Your task to perform on an android device: Clear the shopping cart on target. Add "lenovo thinkpad" to the cart on target, then select checkout. Image 0: 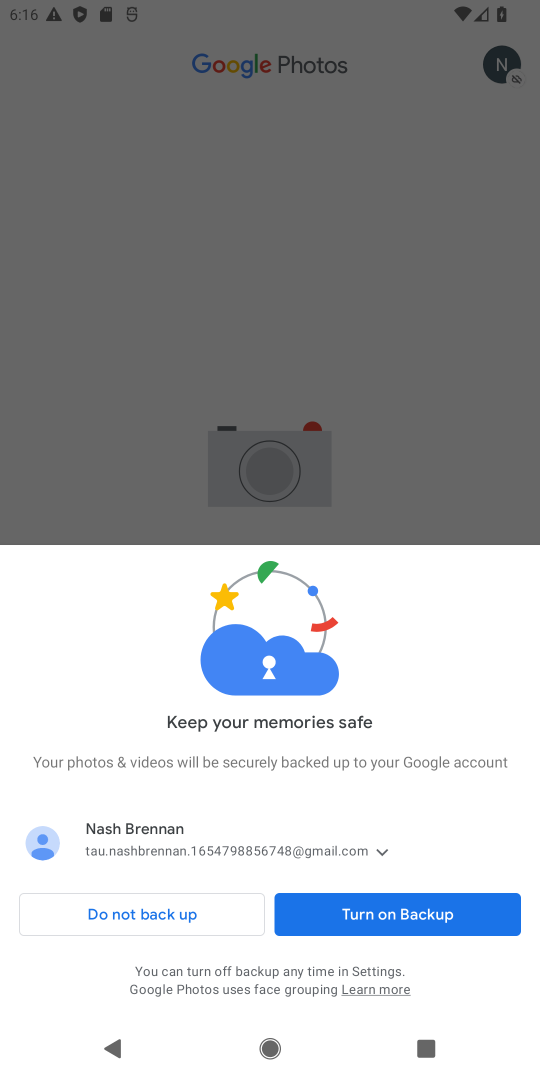
Step 0: click (387, 924)
Your task to perform on an android device: Clear the shopping cart on target. Add "lenovo thinkpad" to the cart on target, then select checkout. Image 1: 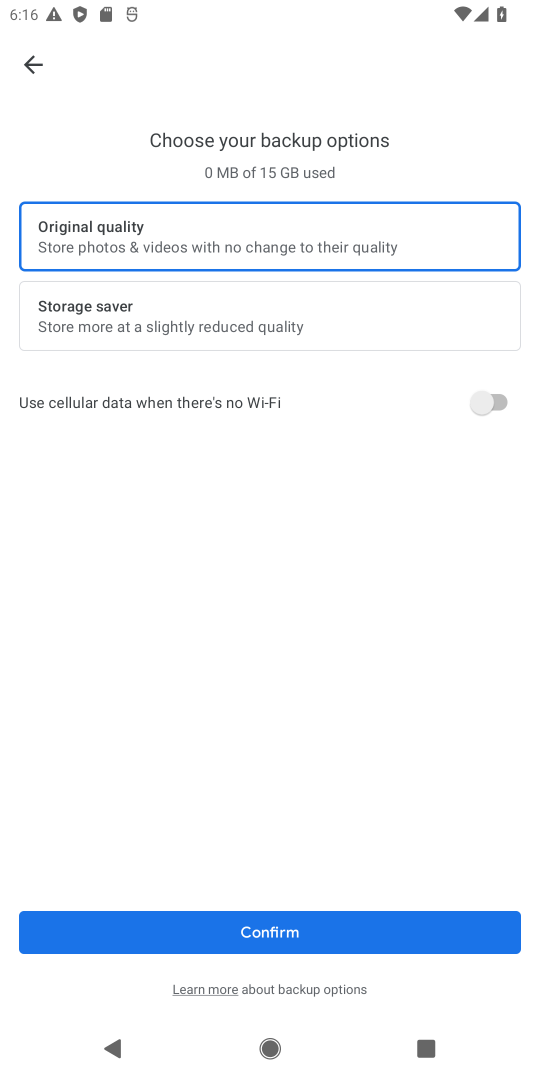
Step 1: click (299, 938)
Your task to perform on an android device: Clear the shopping cart on target. Add "lenovo thinkpad" to the cart on target, then select checkout. Image 2: 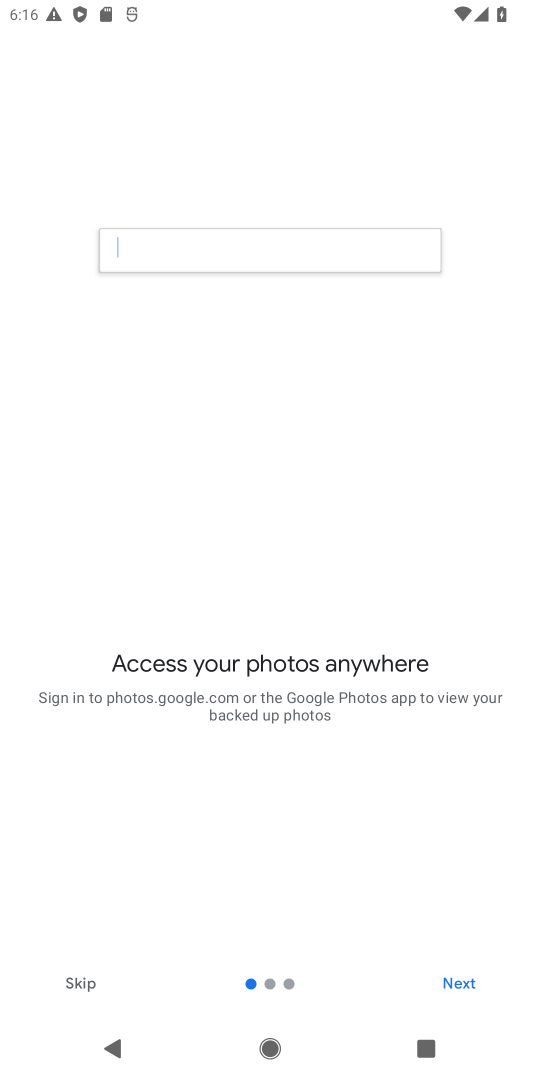
Step 2: press home button
Your task to perform on an android device: Clear the shopping cart on target. Add "lenovo thinkpad" to the cart on target, then select checkout. Image 3: 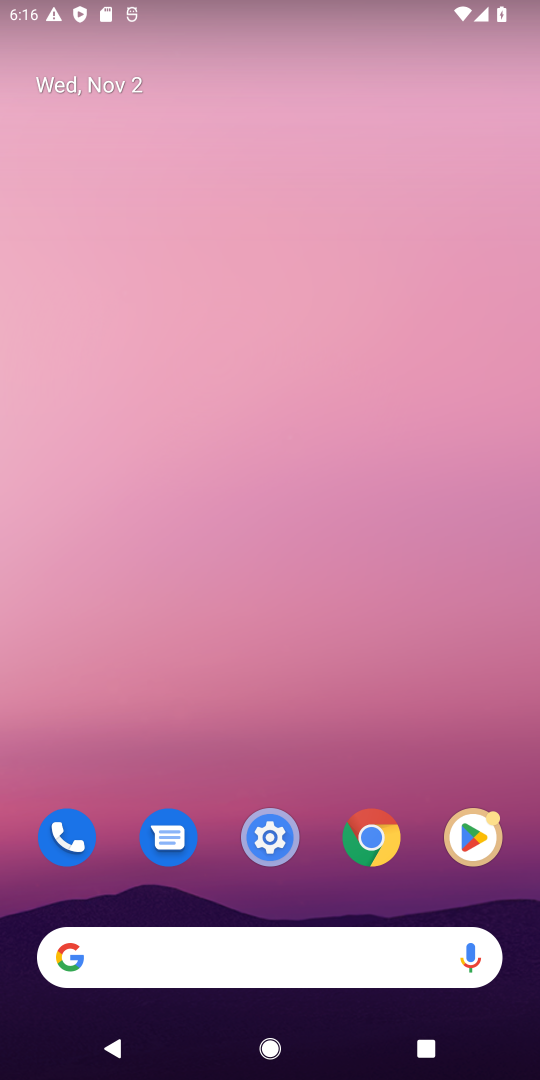
Step 3: click (370, 827)
Your task to perform on an android device: Clear the shopping cart on target. Add "lenovo thinkpad" to the cart on target, then select checkout. Image 4: 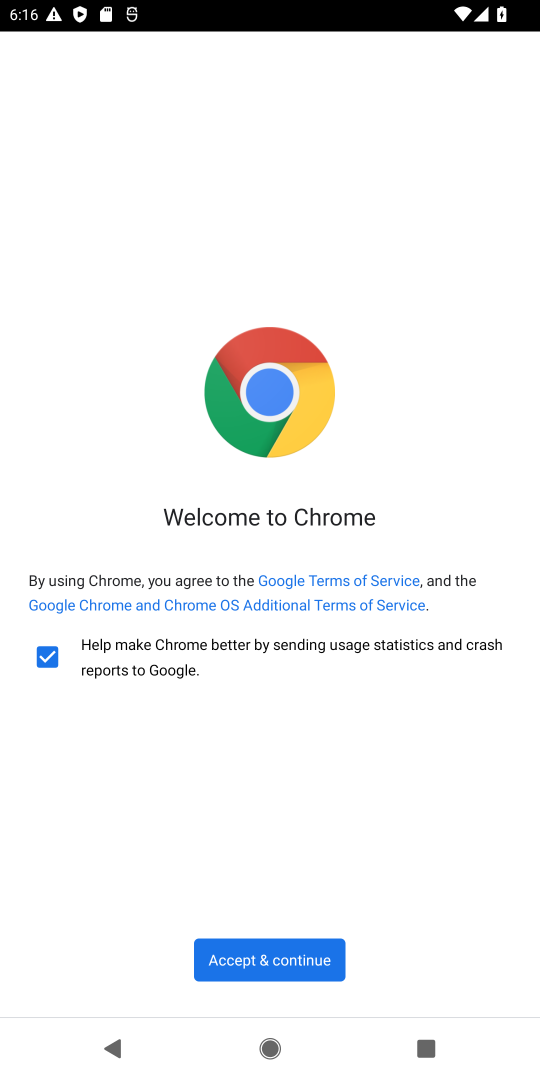
Step 4: click (283, 965)
Your task to perform on an android device: Clear the shopping cart on target. Add "lenovo thinkpad" to the cart on target, then select checkout. Image 5: 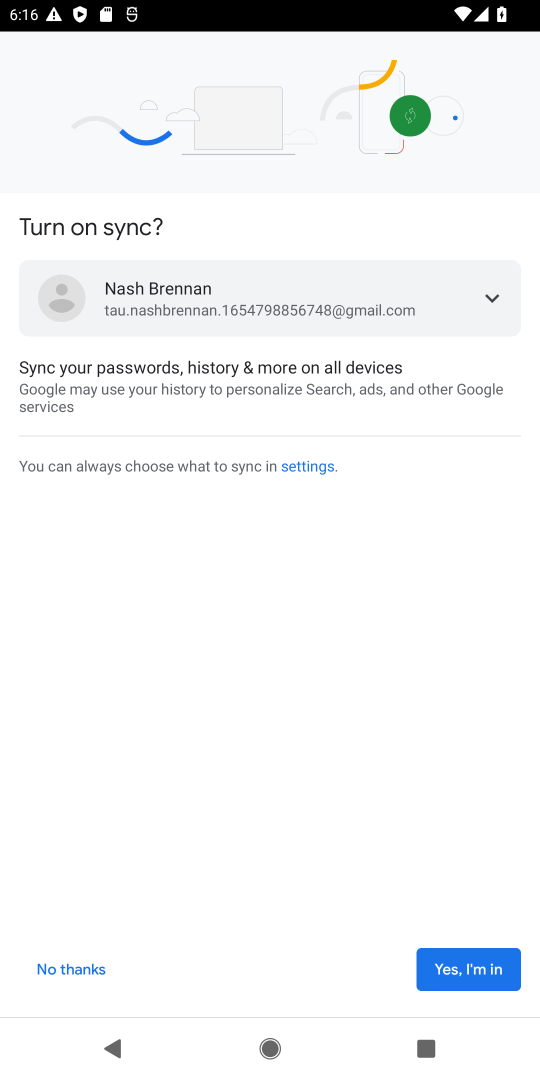
Step 5: click (481, 982)
Your task to perform on an android device: Clear the shopping cart on target. Add "lenovo thinkpad" to the cart on target, then select checkout. Image 6: 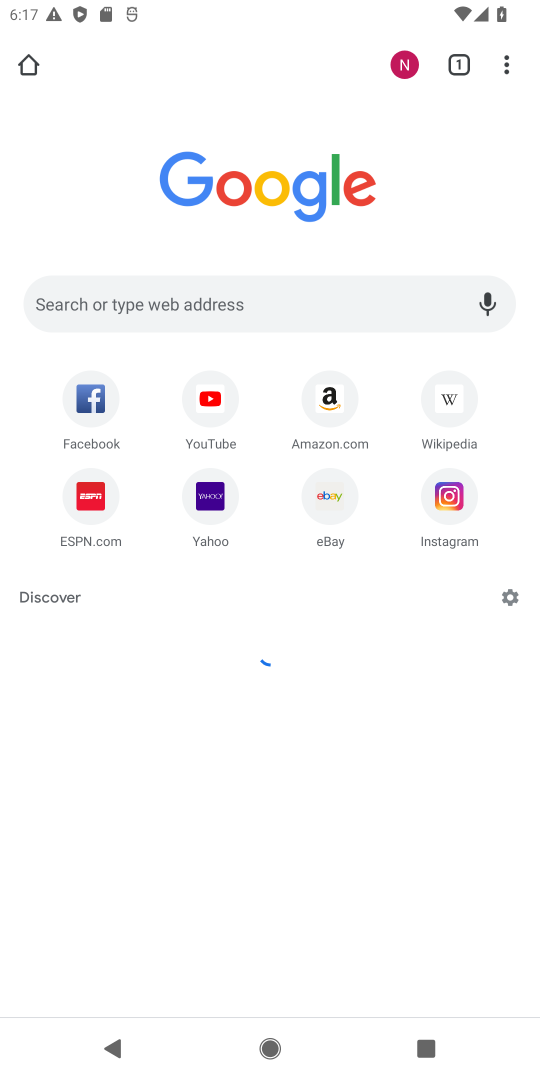
Step 6: click (172, 303)
Your task to perform on an android device: Clear the shopping cart on target. Add "lenovo thinkpad" to the cart on target, then select checkout. Image 7: 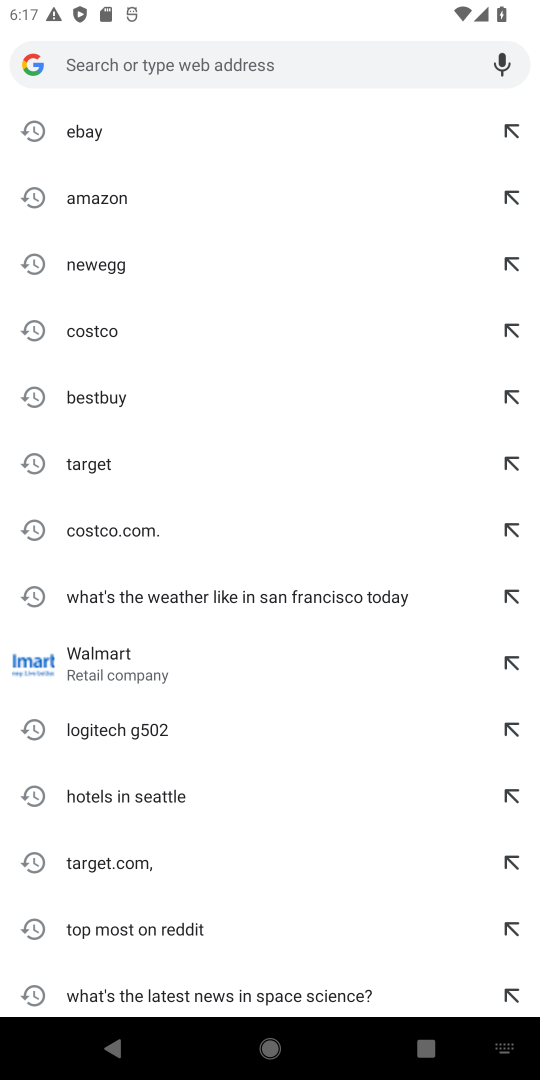
Step 7: type "target"
Your task to perform on an android device: Clear the shopping cart on target. Add "lenovo thinkpad" to the cart on target, then select checkout. Image 8: 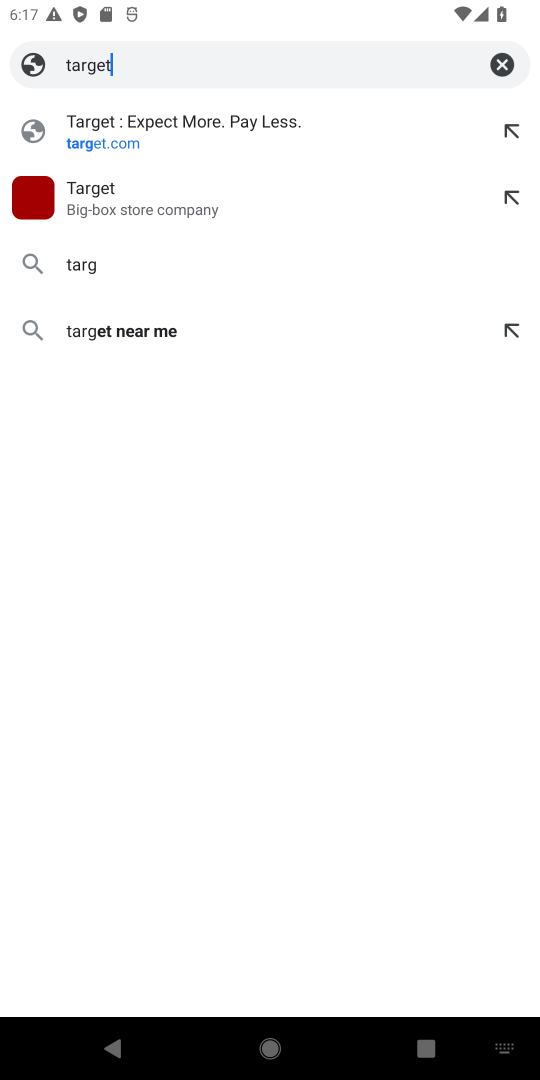
Step 8: type ""
Your task to perform on an android device: Clear the shopping cart on target. Add "lenovo thinkpad" to the cart on target, then select checkout. Image 9: 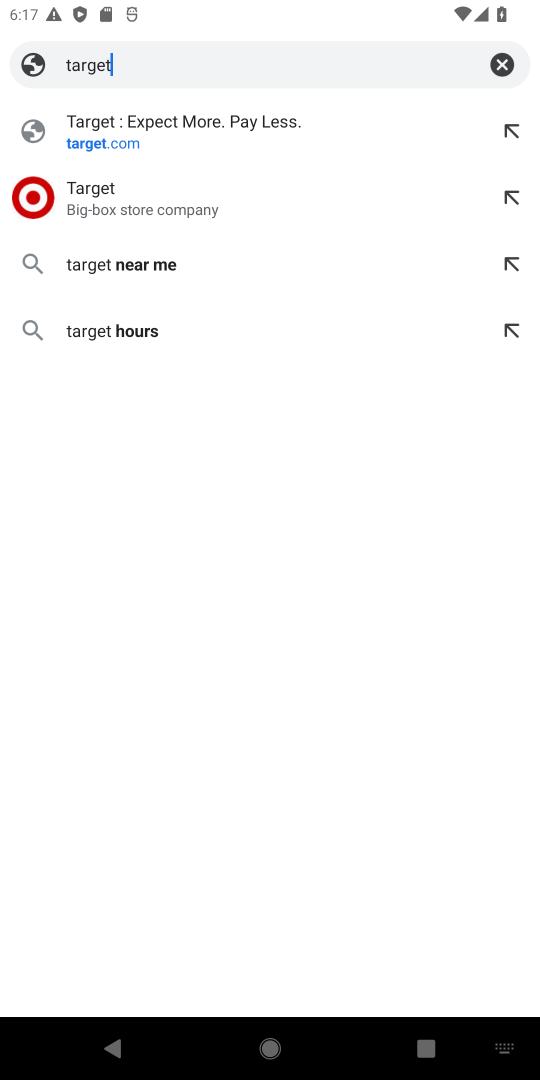
Step 9: click (69, 131)
Your task to perform on an android device: Clear the shopping cart on target. Add "lenovo thinkpad" to the cart on target, then select checkout. Image 10: 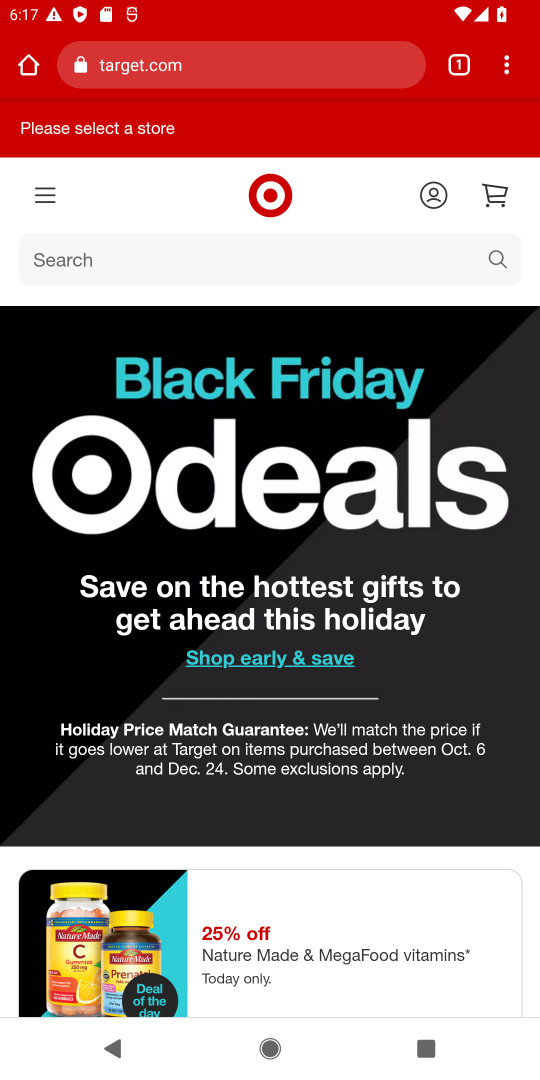
Step 10: click (502, 256)
Your task to perform on an android device: Clear the shopping cart on target. Add "lenovo thinkpad" to the cart on target, then select checkout. Image 11: 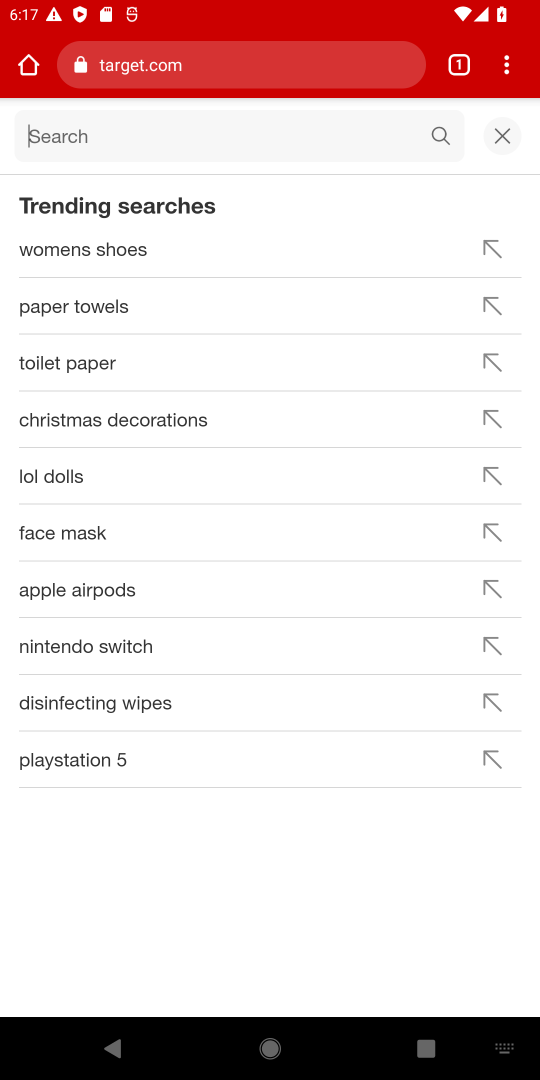
Step 11: type "lenovo thinkpad"
Your task to perform on an android device: Clear the shopping cart on target. Add "lenovo thinkpad" to the cart on target, then select checkout. Image 12: 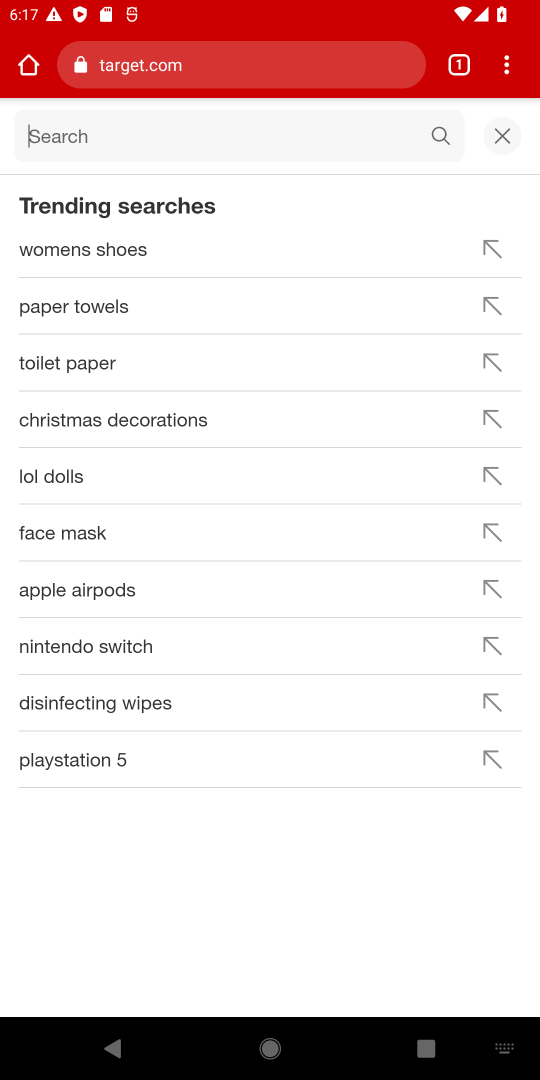
Step 12: type ""
Your task to perform on an android device: Clear the shopping cart on target. Add "lenovo thinkpad" to the cart on target, then select checkout. Image 13: 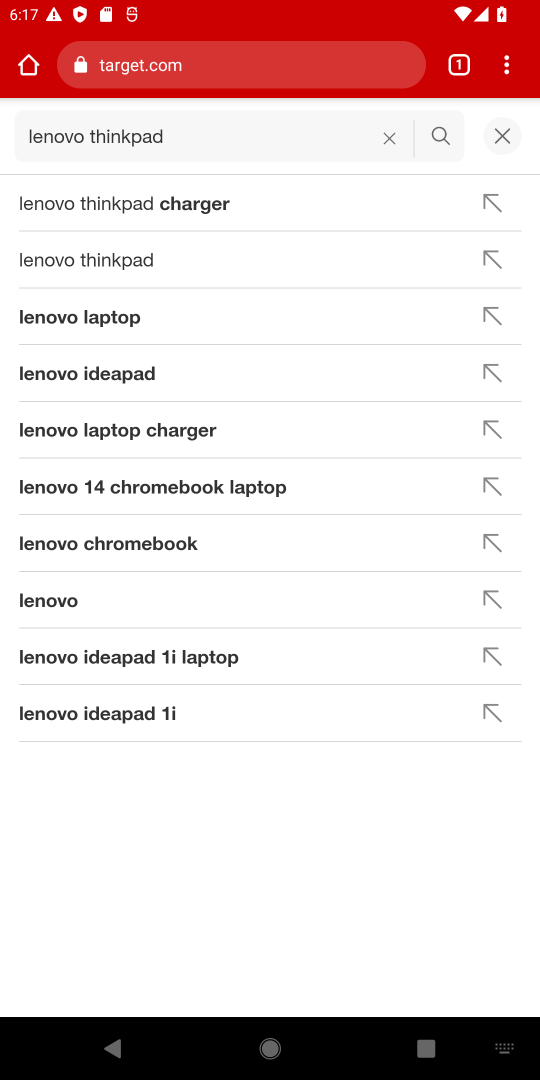
Step 13: click (92, 261)
Your task to perform on an android device: Clear the shopping cart on target. Add "lenovo thinkpad" to the cart on target, then select checkout. Image 14: 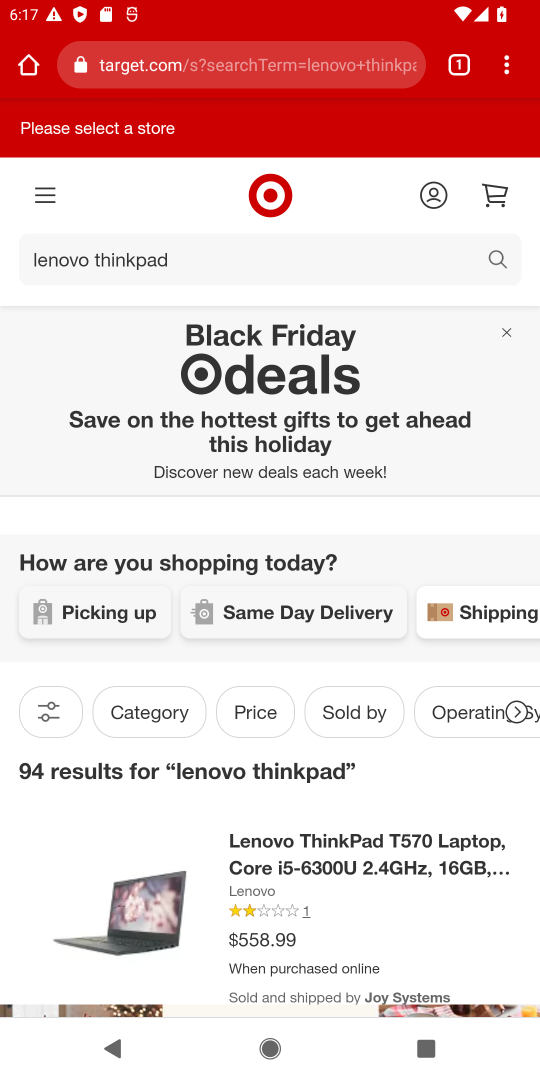
Step 14: drag from (141, 797) to (245, 151)
Your task to perform on an android device: Clear the shopping cart on target. Add "lenovo thinkpad" to the cart on target, then select checkout. Image 15: 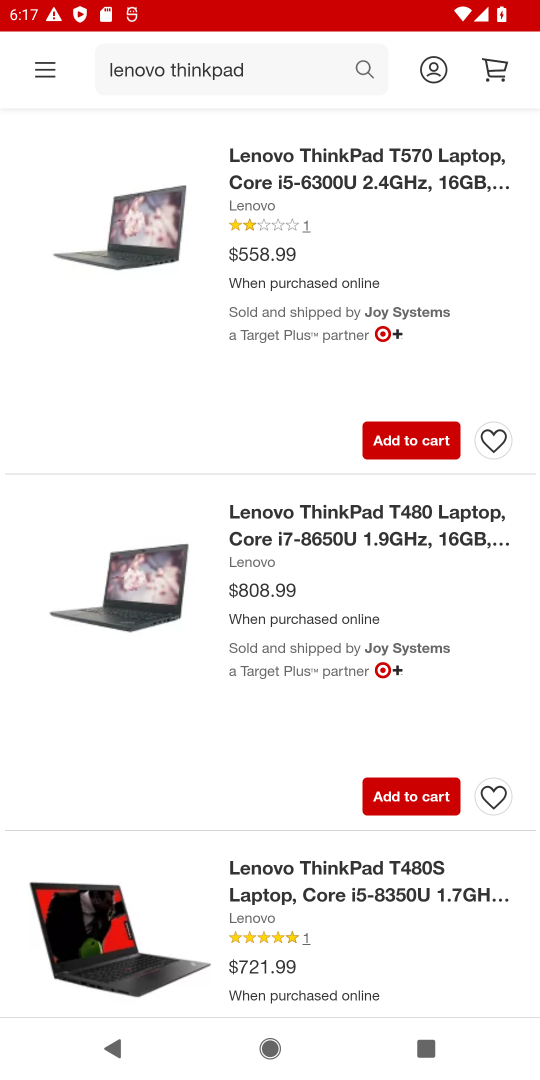
Step 15: click (411, 652)
Your task to perform on an android device: Clear the shopping cart on target. Add "lenovo thinkpad" to the cart on target, then select checkout. Image 16: 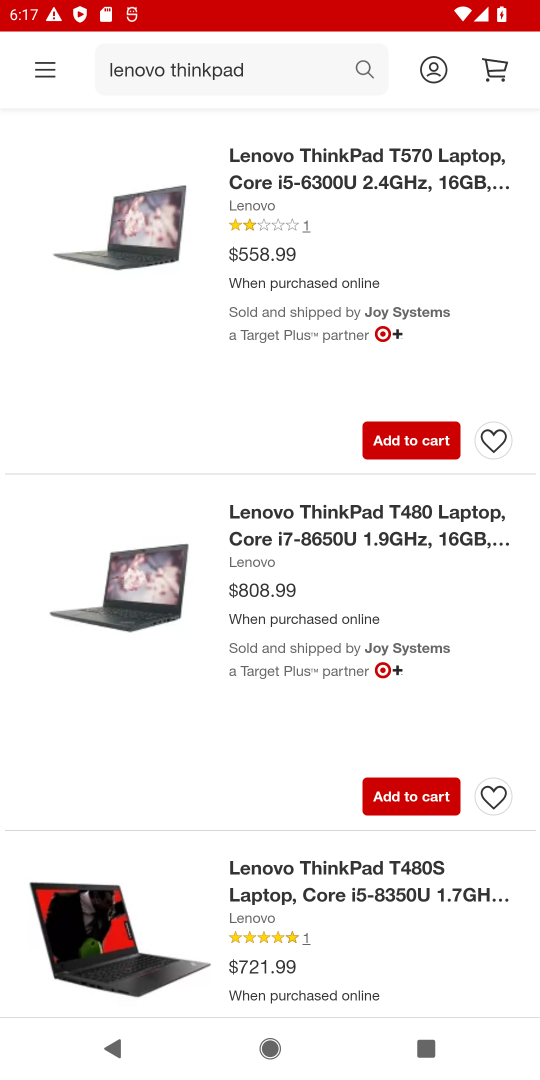
Step 16: click (405, 443)
Your task to perform on an android device: Clear the shopping cart on target. Add "lenovo thinkpad" to the cart on target, then select checkout. Image 17: 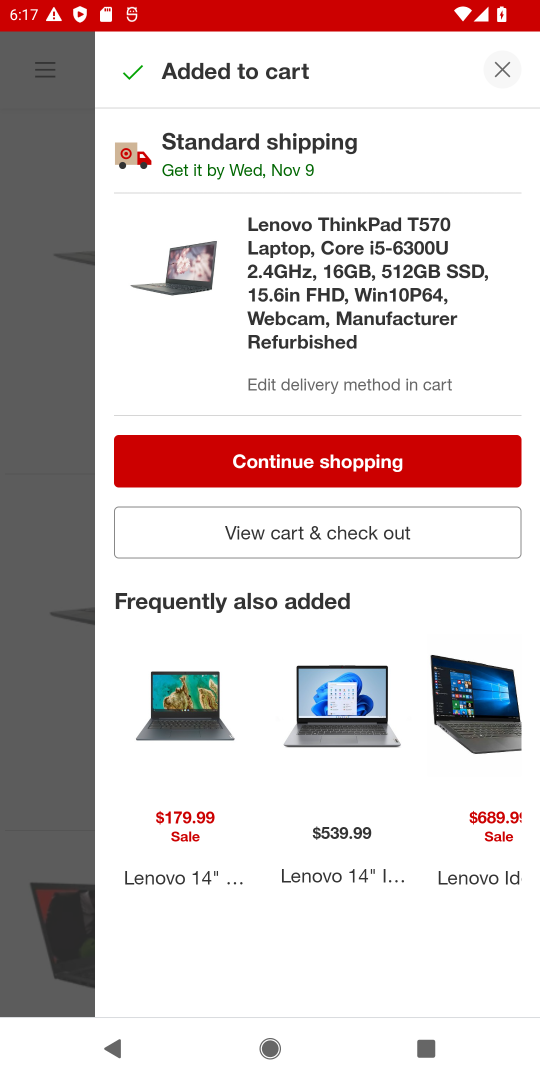
Step 17: click (289, 533)
Your task to perform on an android device: Clear the shopping cart on target. Add "lenovo thinkpad" to the cart on target, then select checkout. Image 18: 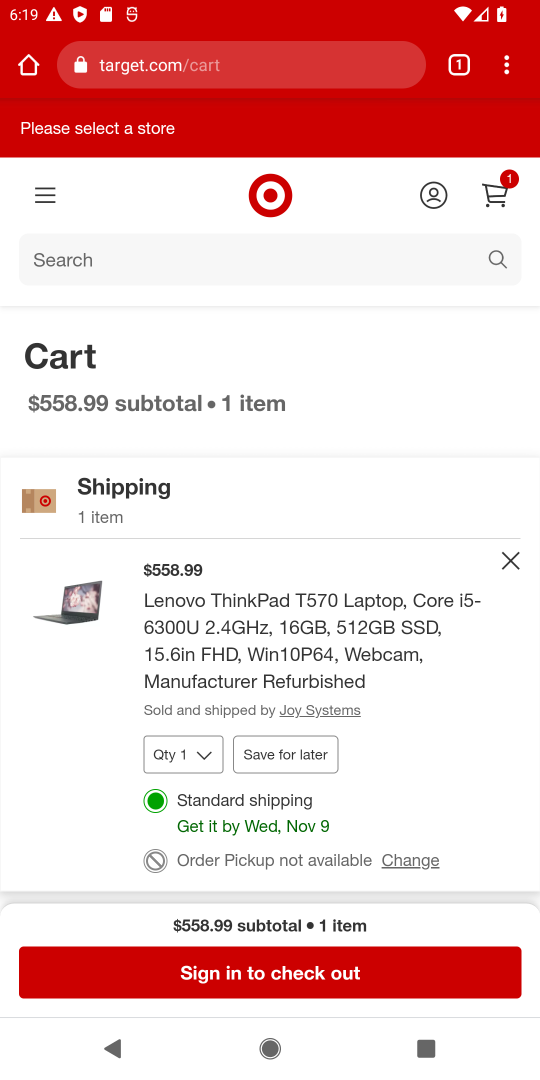
Step 18: click (306, 975)
Your task to perform on an android device: Clear the shopping cart on target. Add "lenovo thinkpad" to the cart on target, then select checkout. Image 19: 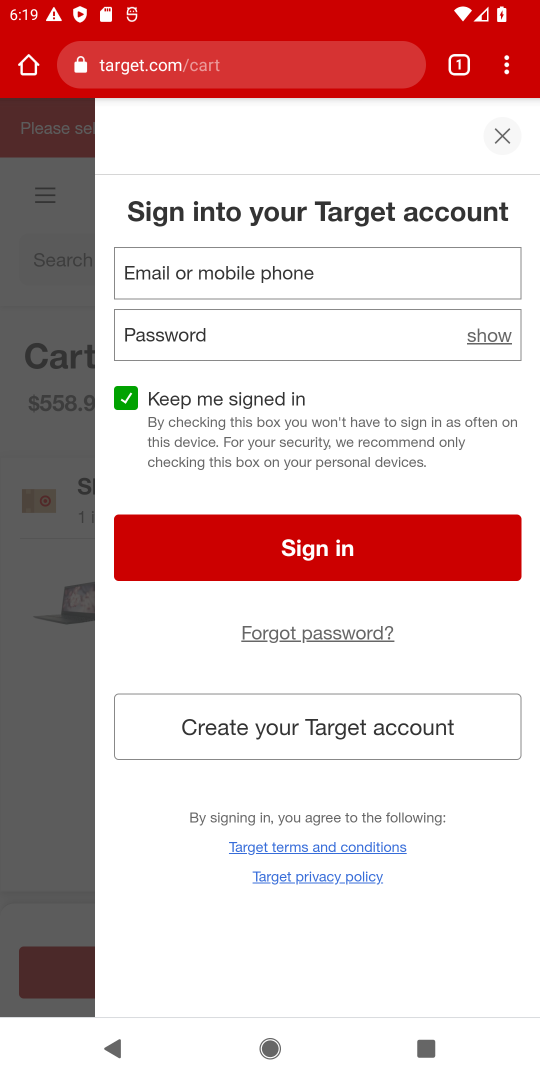
Step 19: press home button
Your task to perform on an android device: Clear the shopping cart on target. Add "lenovo thinkpad" to the cart on target, then select checkout. Image 20: 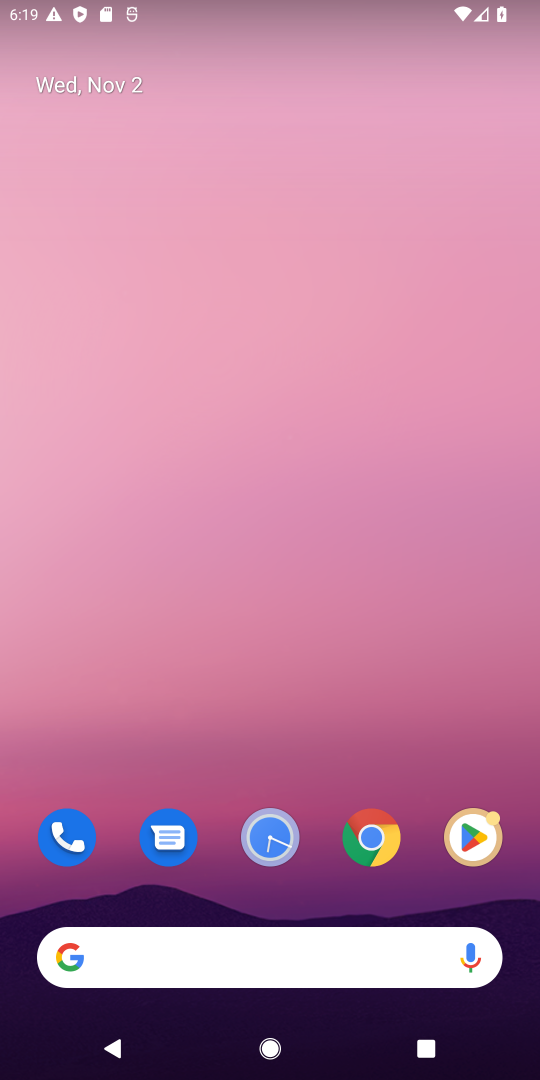
Step 20: click (377, 881)
Your task to perform on an android device: Clear the shopping cart on target. Add "lenovo thinkpad" to the cart on target, then select checkout. Image 21: 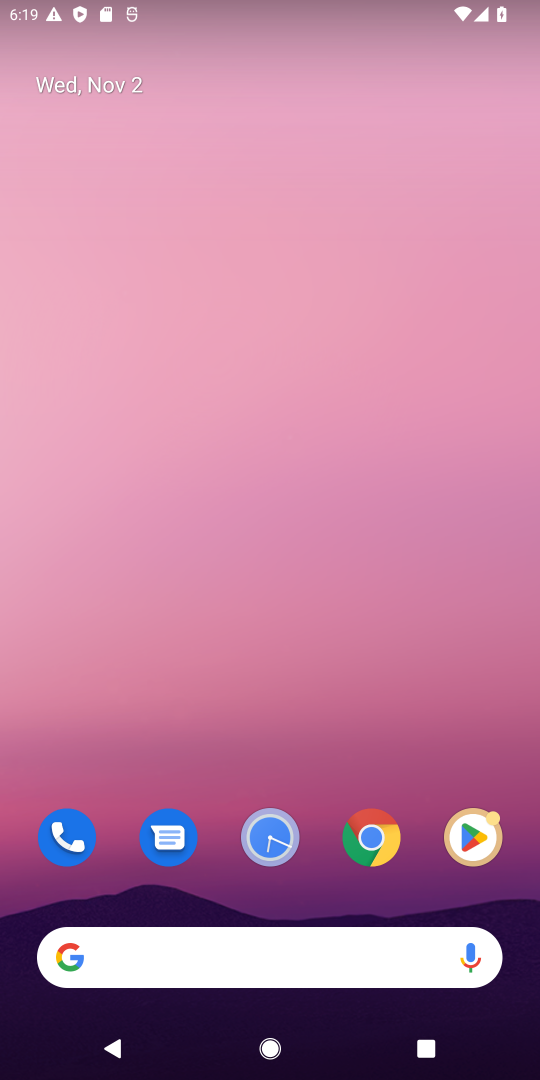
Step 21: click (372, 842)
Your task to perform on an android device: Clear the shopping cart on target. Add "lenovo thinkpad" to the cart on target, then select checkout. Image 22: 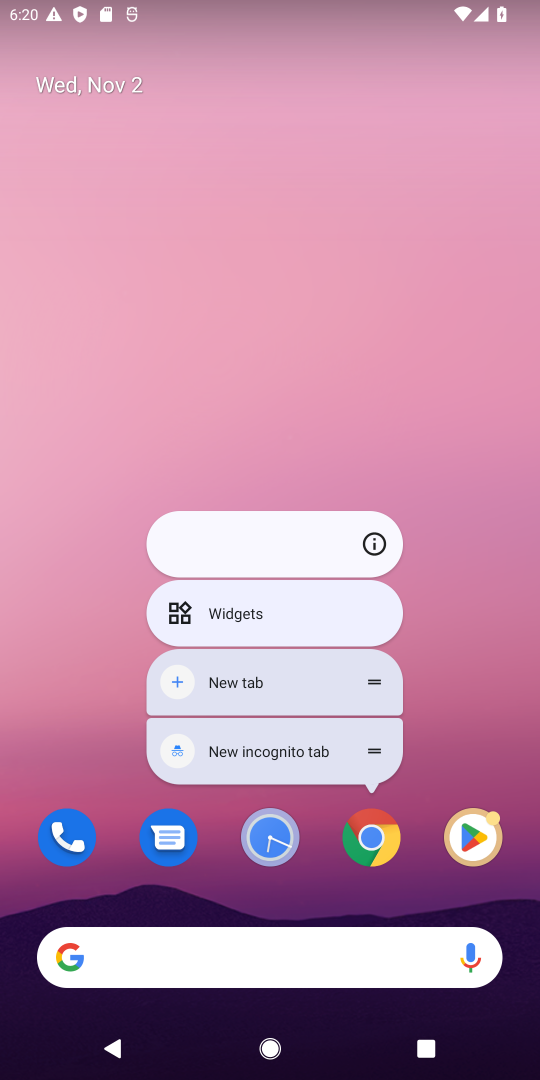
Step 22: click (376, 842)
Your task to perform on an android device: Clear the shopping cart on target. Add "lenovo thinkpad" to the cart on target, then select checkout. Image 23: 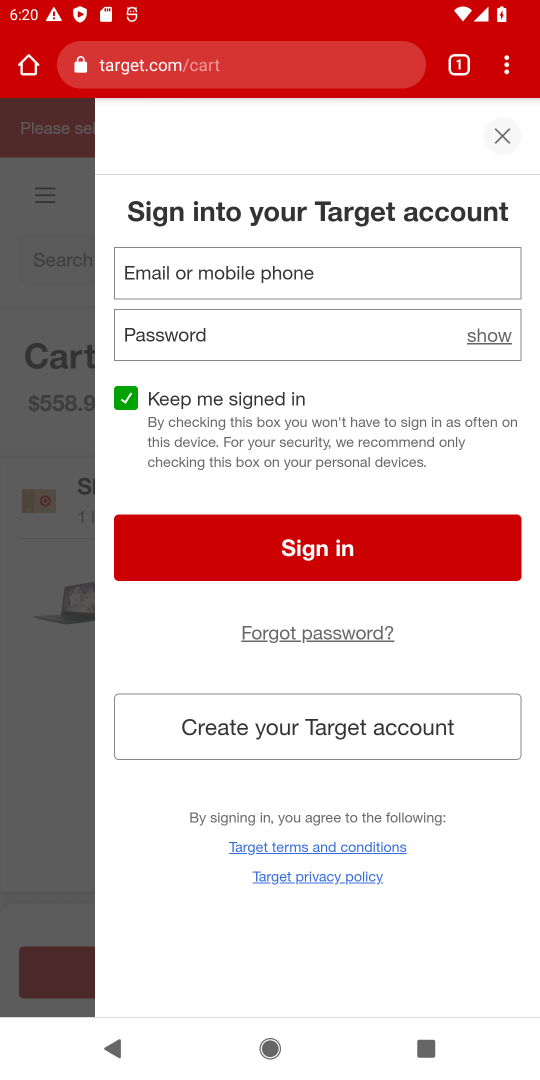
Step 23: click (502, 135)
Your task to perform on an android device: Clear the shopping cart on target. Add "lenovo thinkpad" to the cart on target, then select checkout. Image 24: 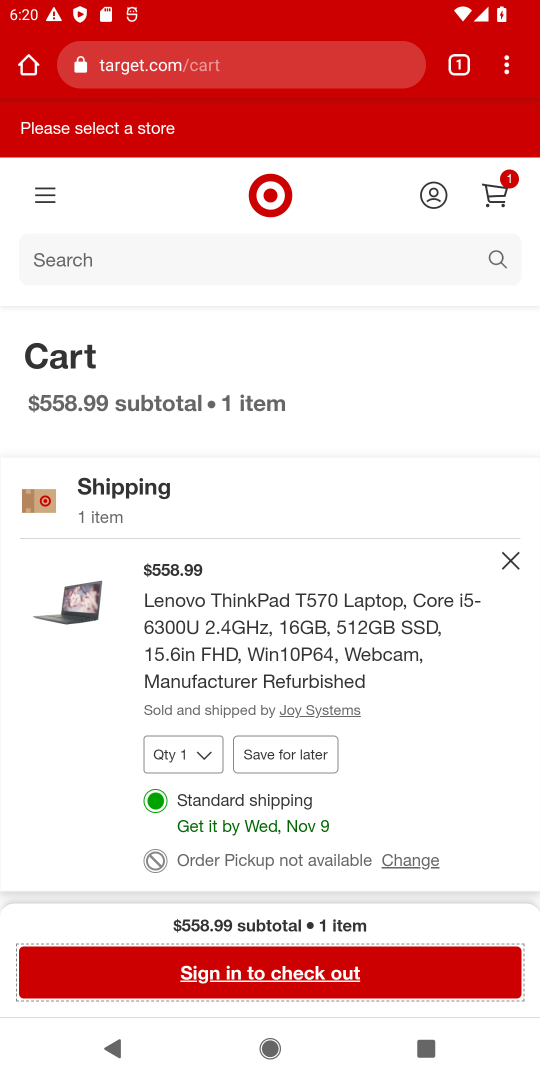
Step 24: task complete